Your task to perform on an android device: Open calendar and show me the third week of next month Image 0: 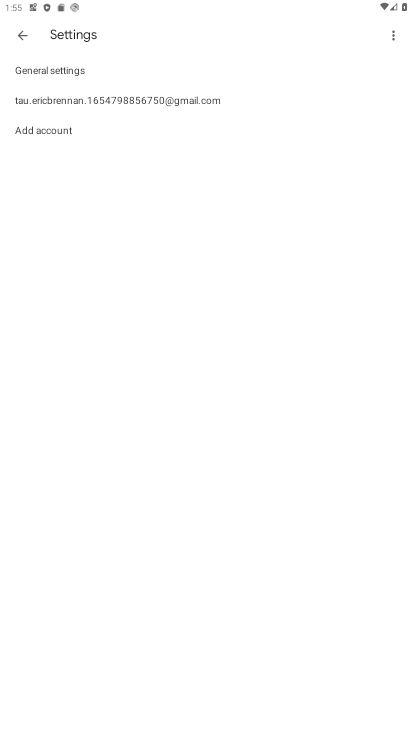
Step 0: press home button
Your task to perform on an android device: Open calendar and show me the third week of next month Image 1: 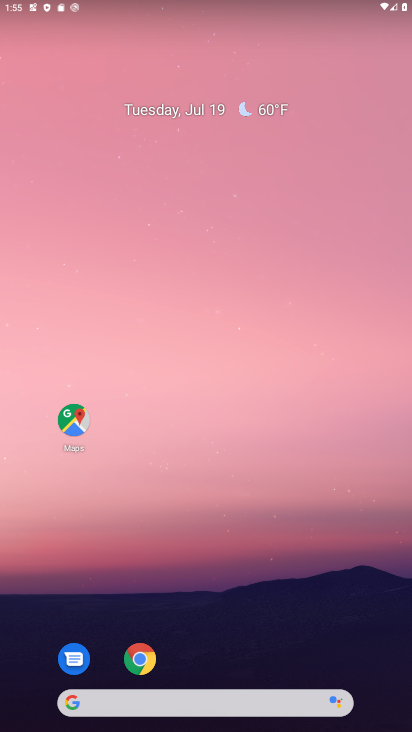
Step 1: drag from (273, 647) to (207, 138)
Your task to perform on an android device: Open calendar and show me the third week of next month Image 2: 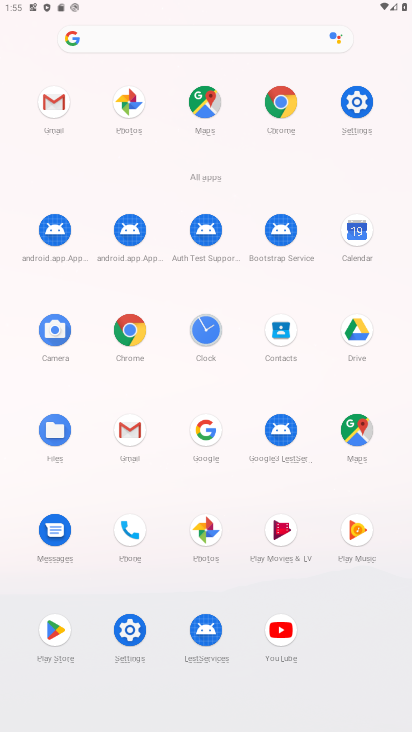
Step 2: click (350, 229)
Your task to perform on an android device: Open calendar and show me the third week of next month Image 3: 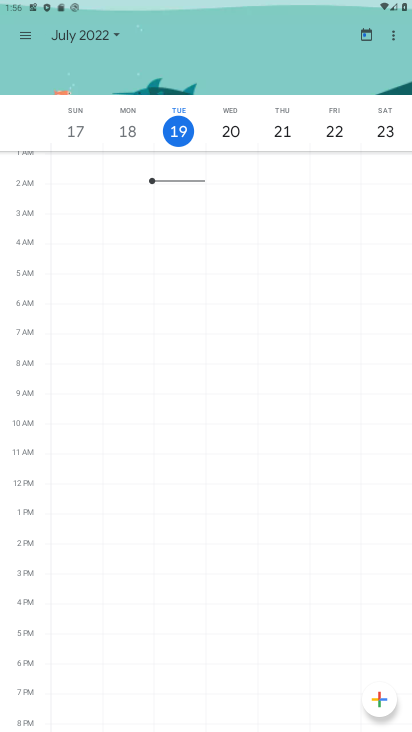
Step 3: click (101, 41)
Your task to perform on an android device: Open calendar and show me the third week of next month Image 4: 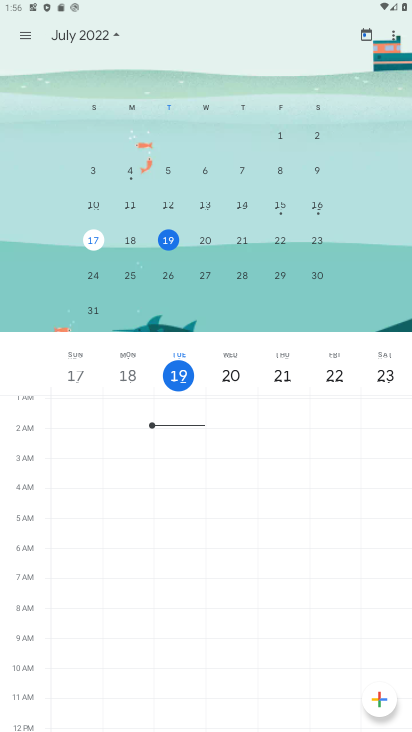
Step 4: drag from (289, 266) to (6, 241)
Your task to perform on an android device: Open calendar and show me the third week of next month Image 5: 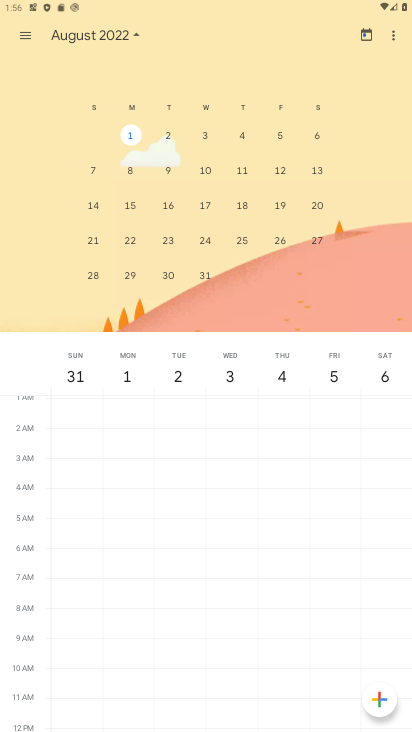
Step 5: click (169, 206)
Your task to perform on an android device: Open calendar and show me the third week of next month Image 6: 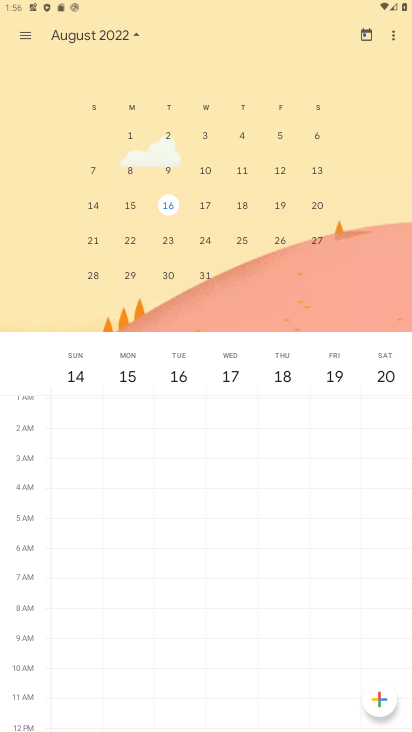
Step 6: task complete